Your task to perform on an android device: choose inbox layout in the gmail app Image 0: 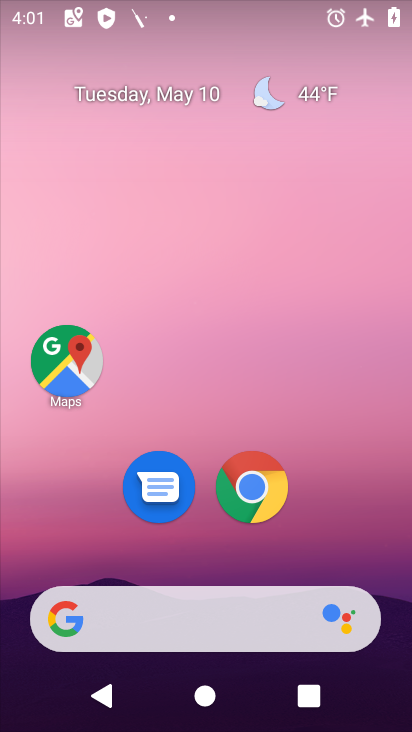
Step 0: drag from (355, 527) to (276, 40)
Your task to perform on an android device: choose inbox layout in the gmail app Image 1: 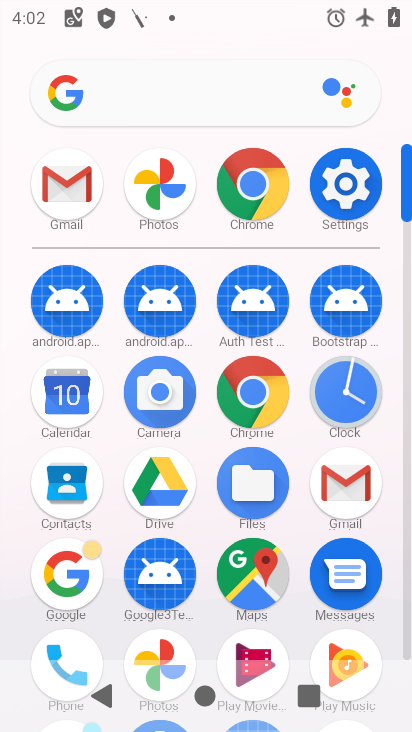
Step 1: click (69, 171)
Your task to perform on an android device: choose inbox layout in the gmail app Image 2: 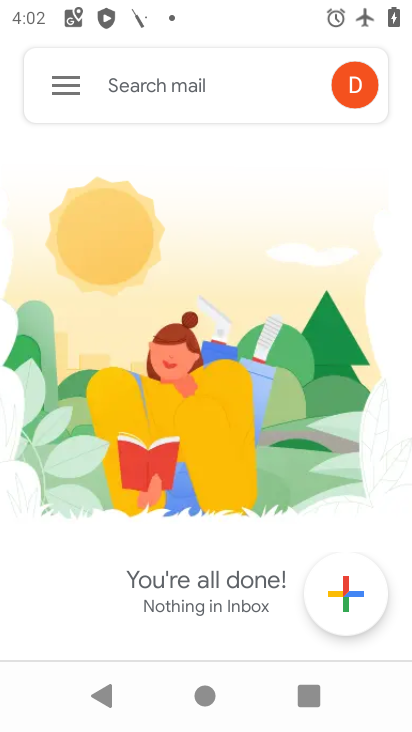
Step 2: click (57, 86)
Your task to perform on an android device: choose inbox layout in the gmail app Image 3: 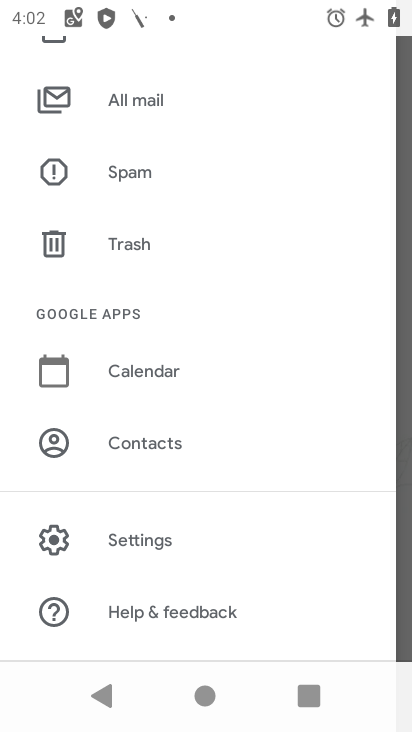
Step 3: click (145, 543)
Your task to perform on an android device: choose inbox layout in the gmail app Image 4: 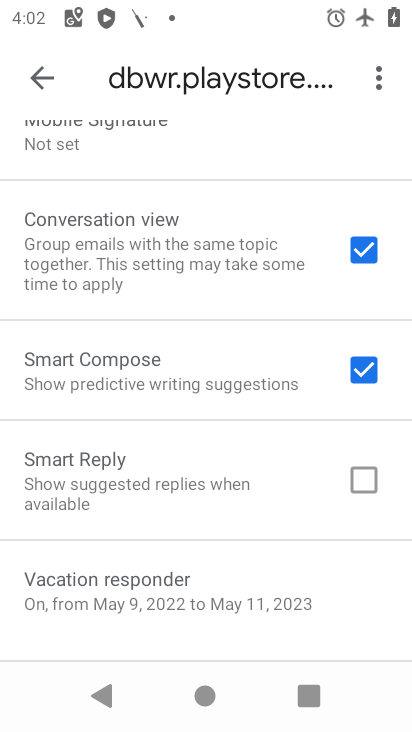
Step 4: drag from (222, 222) to (281, 728)
Your task to perform on an android device: choose inbox layout in the gmail app Image 5: 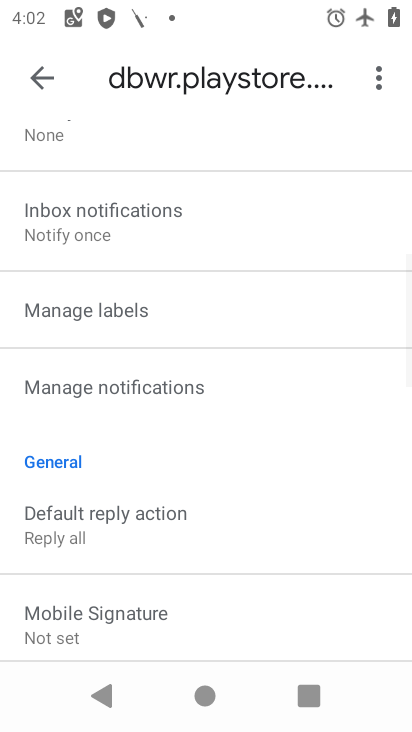
Step 5: drag from (240, 185) to (301, 699)
Your task to perform on an android device: choose inbox layout in the gmail app Image 6: 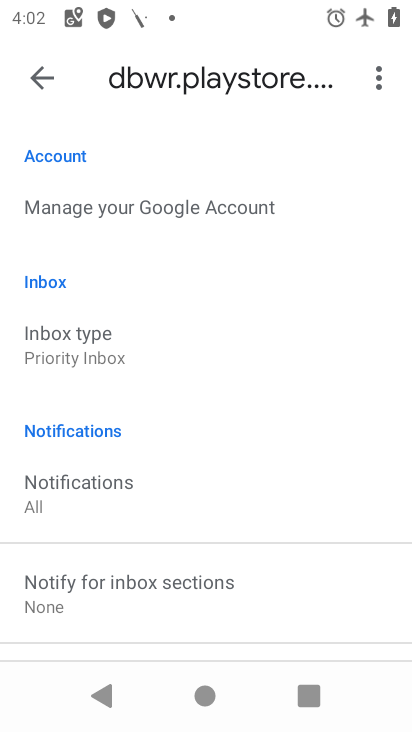
Step 6: click (69, 352)
Your task to perform on an android device: choose inbox layout in the gmail app Image 7: 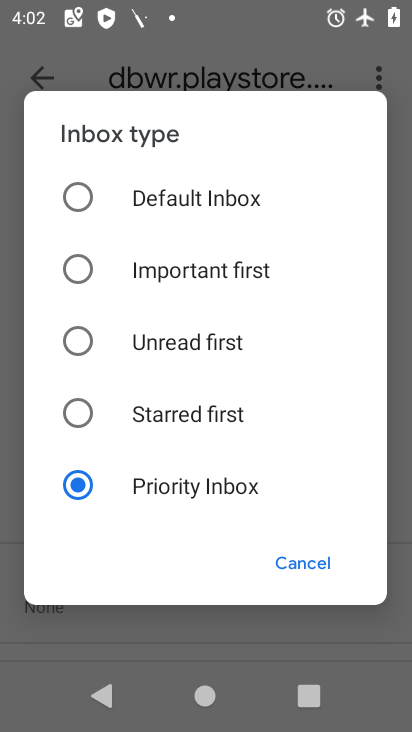
Step 7: task complete